Your task to perform on an android device: Open maps Image 0: 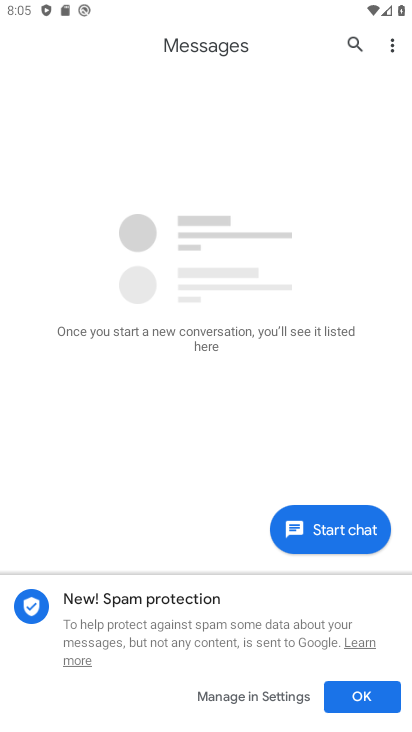
Step 0: press home button
Your task to perform on an android device: Open maps Image 1: 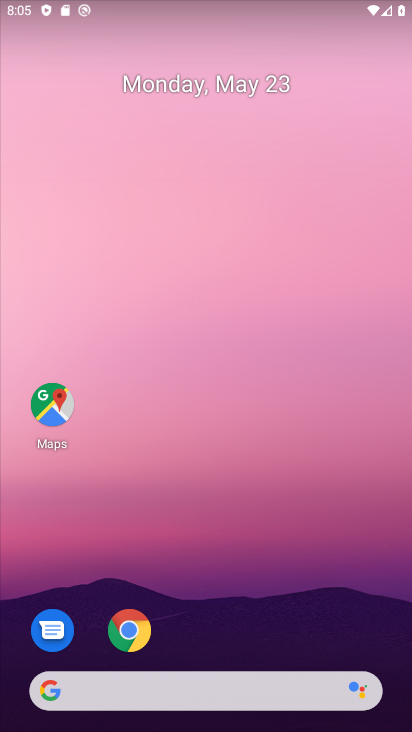
Step 1: click (41, 413)
Your task to perform on an android device: Open maps Image 2: 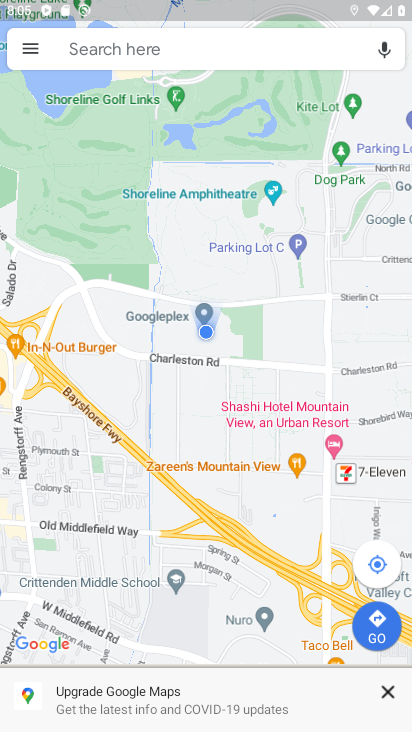
Step 2: task complete